Your task to perform on an android device: install app "Pandora - Music & Podcasts" Image 0: 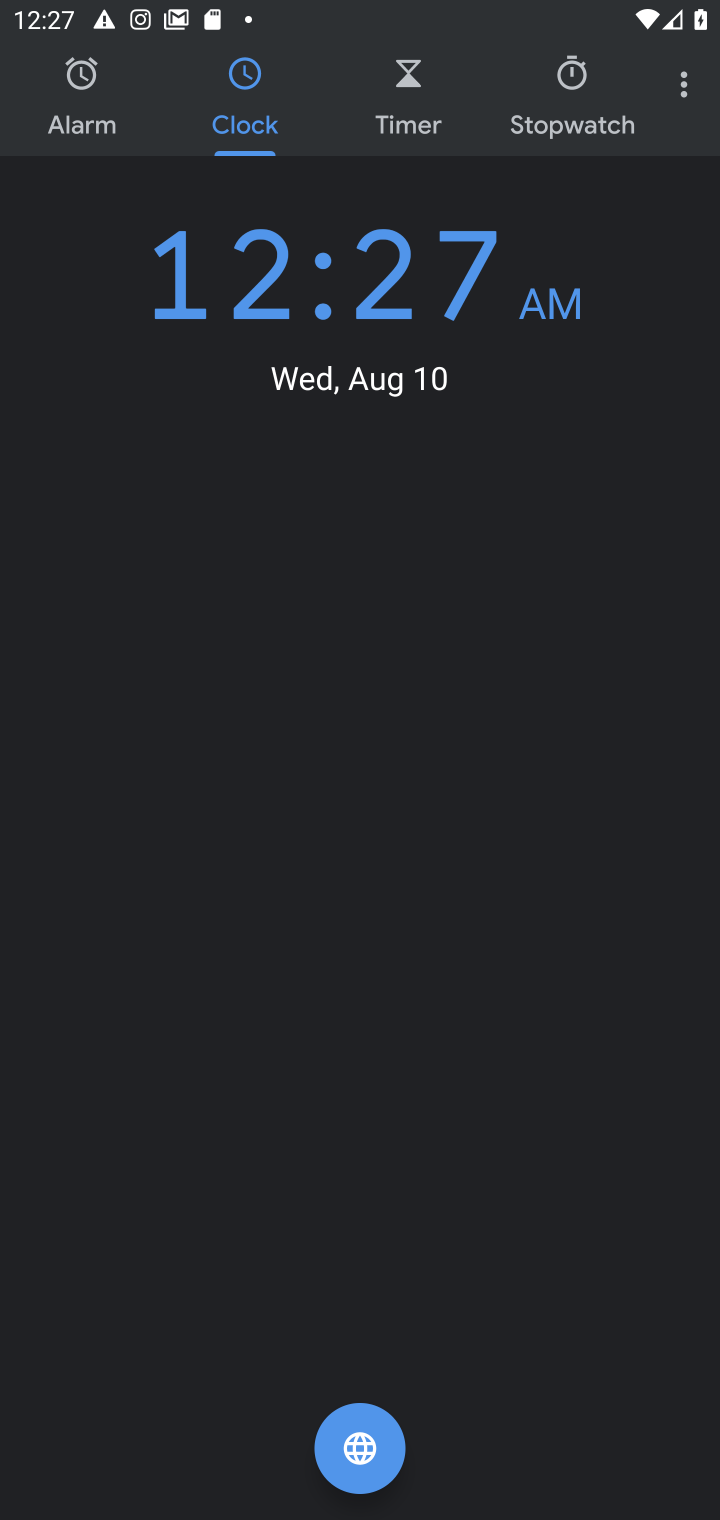
Step 0: press home button
Your task to perform on an android device: install app "Pandora - Music & Podcasts" Image 1: 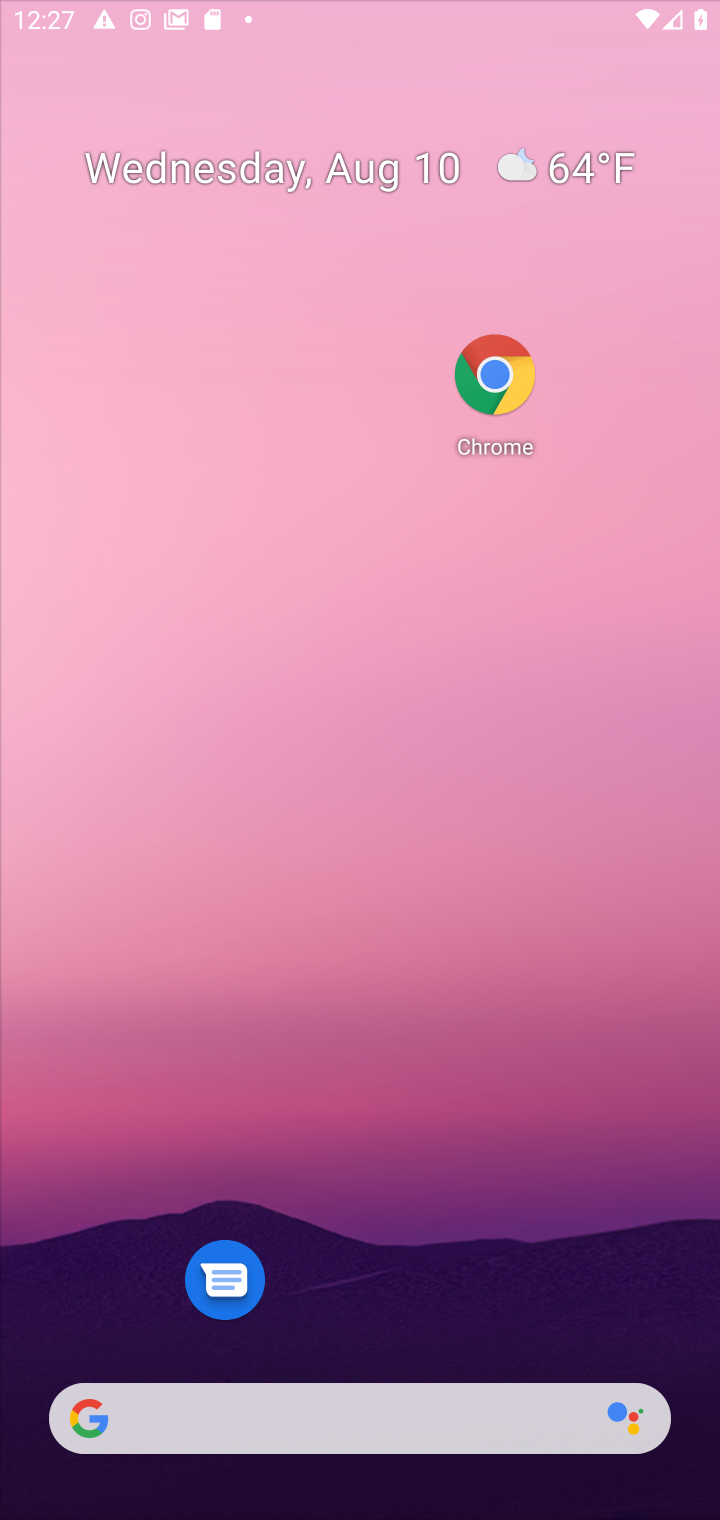
Step 1: drag from (273, 1307) to (39, 23)
Your task to perform on an android device: install app "Pandora - Music & Podcasts" Image 2: 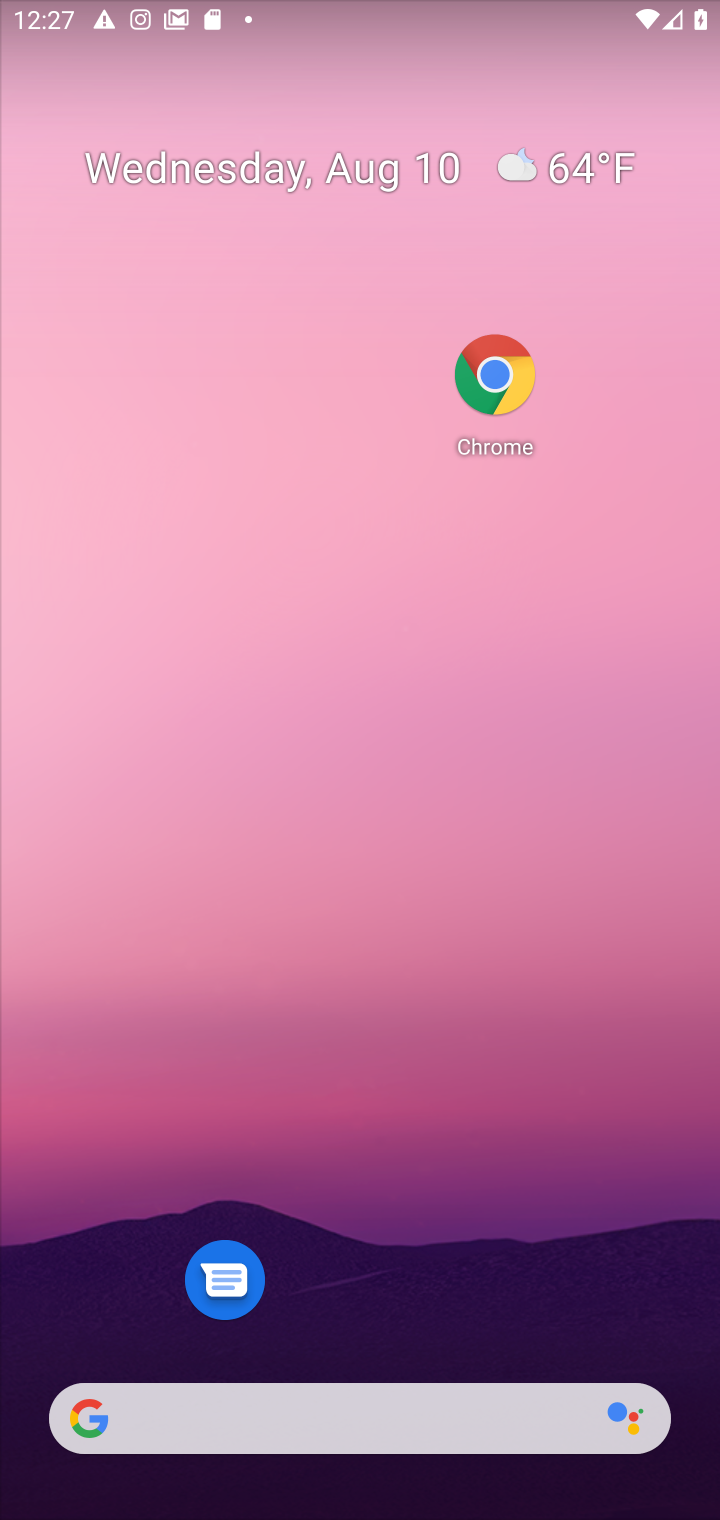
Step 2: drag from (407, 1366) to (316, 102)
Your task to perform on an android device: install app "Pandora - Music & Podcasts" Image 3: 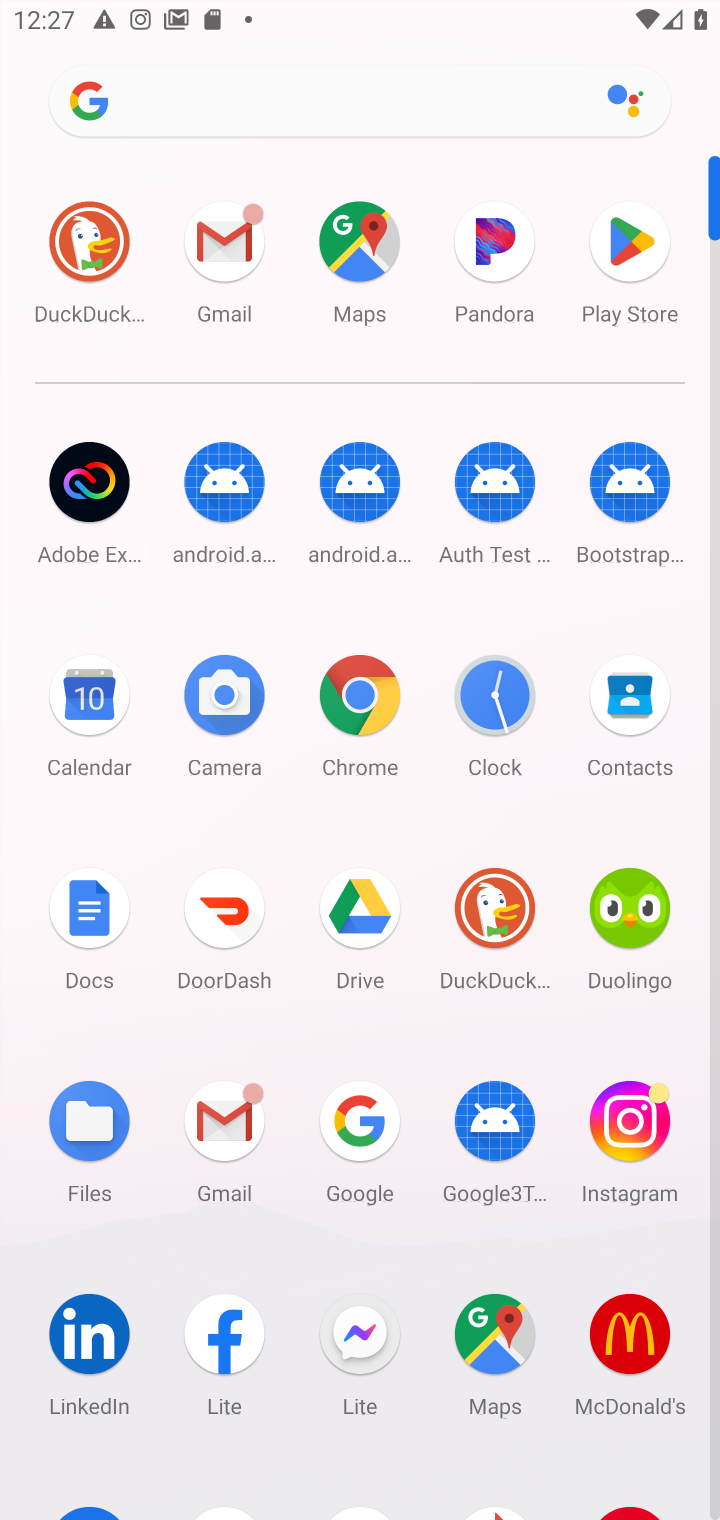
Step 3: click (601, 259)
Your task to perform on an android device: install app "Pandora - Music & Podcasts" Image 4: 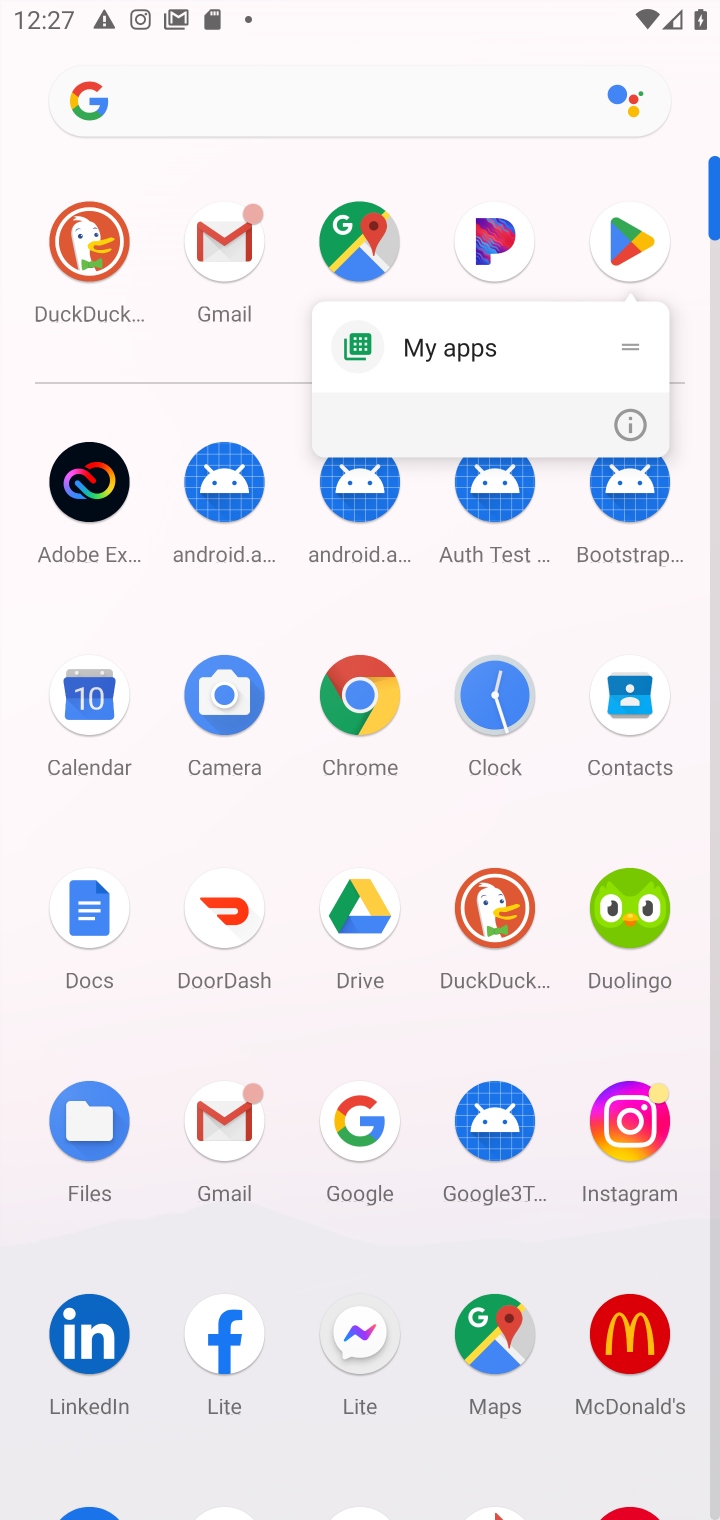
Step 4: click (625, 252)
Your task to perform on an android device: install app "Pandora - Music & Podcasts" Image 5: 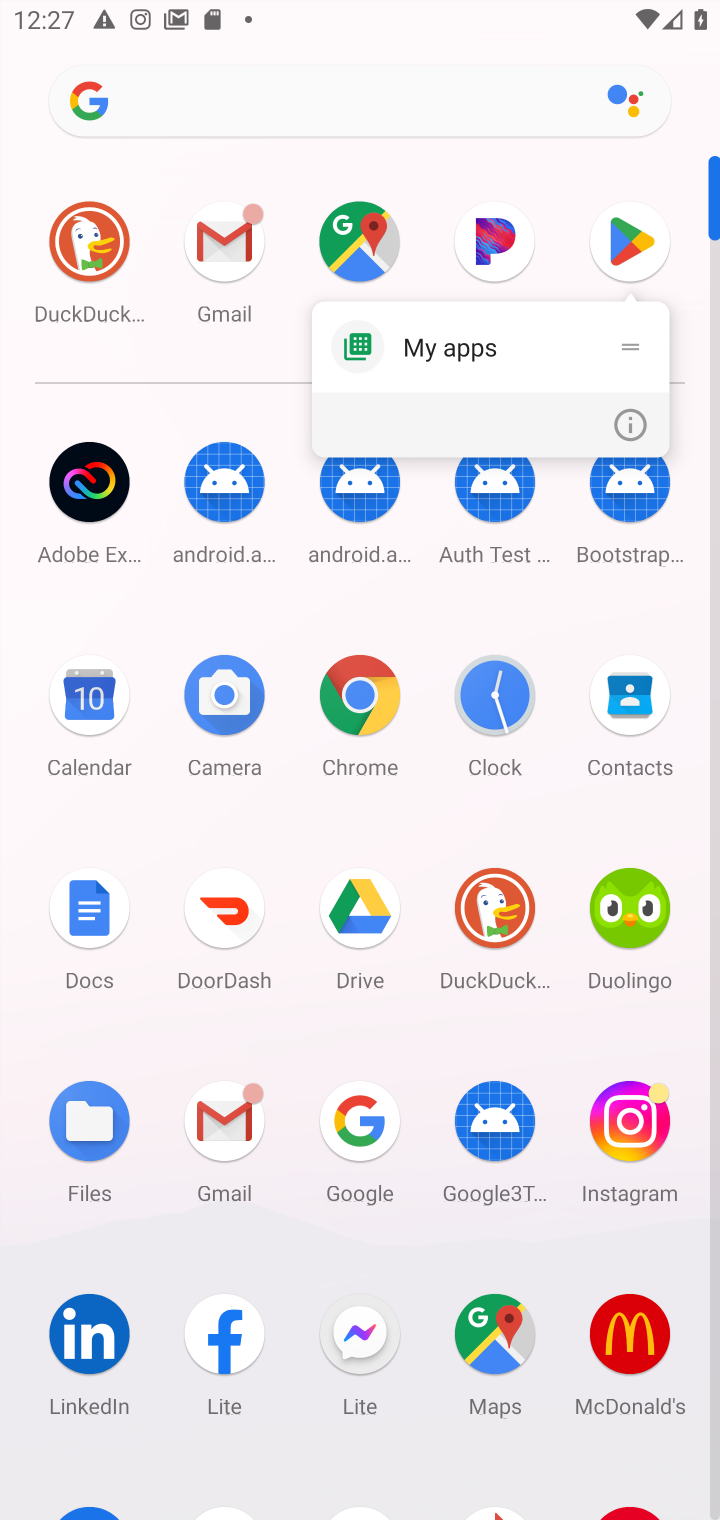
Step 5: click (625, 252)
Your task to perform on an android device: install app "Pandora - Music & Podcasts" Image 6: 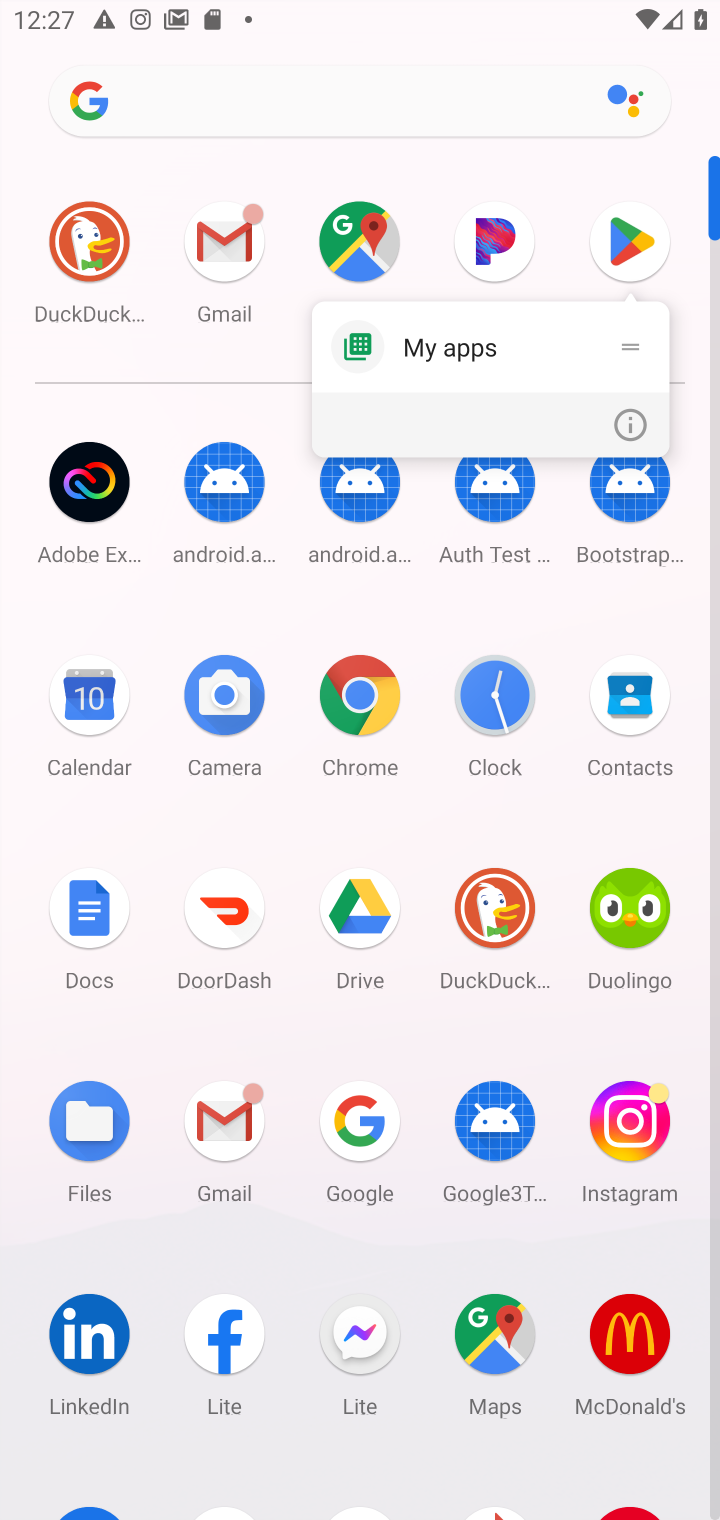
Step 6: click (625, 252)
Your task to perform on an android device: install app "Pandora - Music & Podcasts" Image 7: 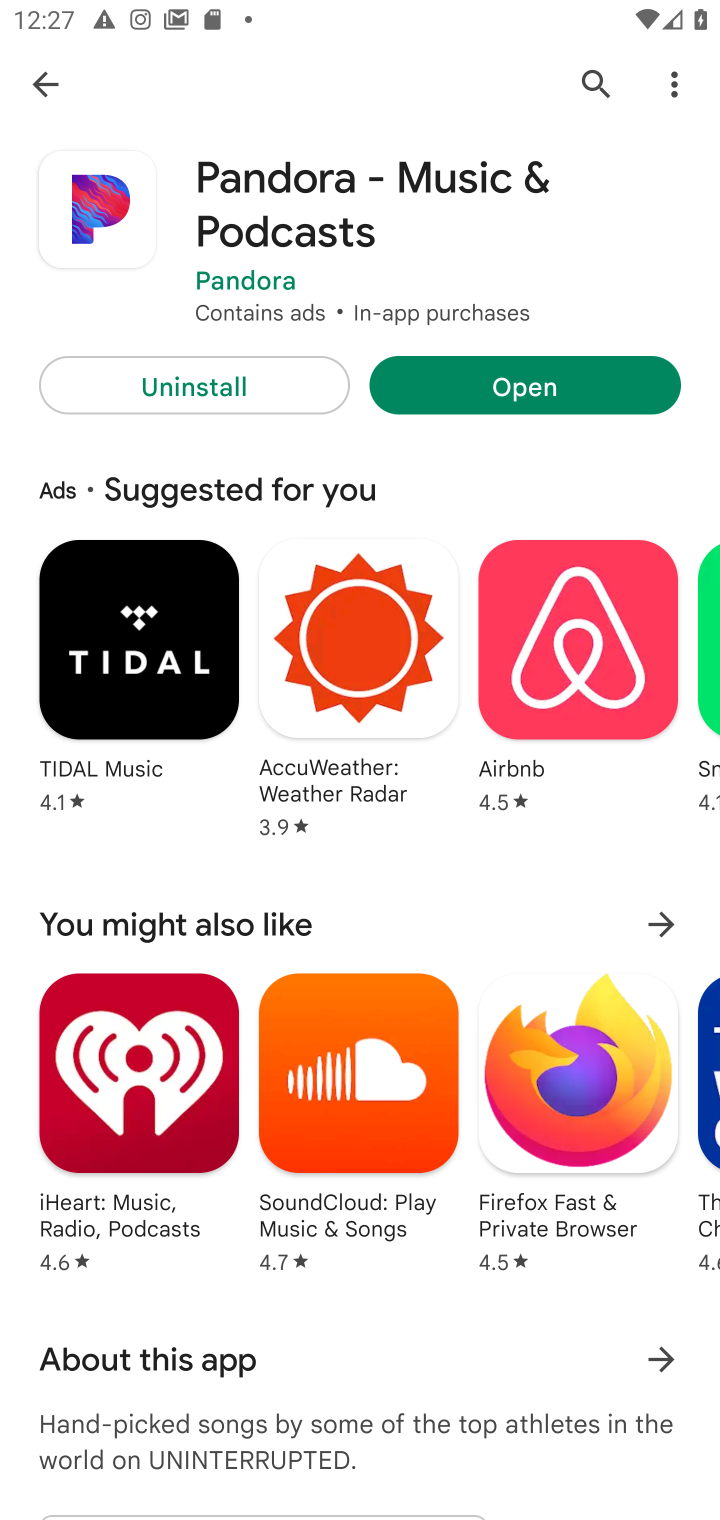
Step 7: click (525, 390)
Your task to perform on an android device: install app "Pandora - Music & Podcasts" Image 8: 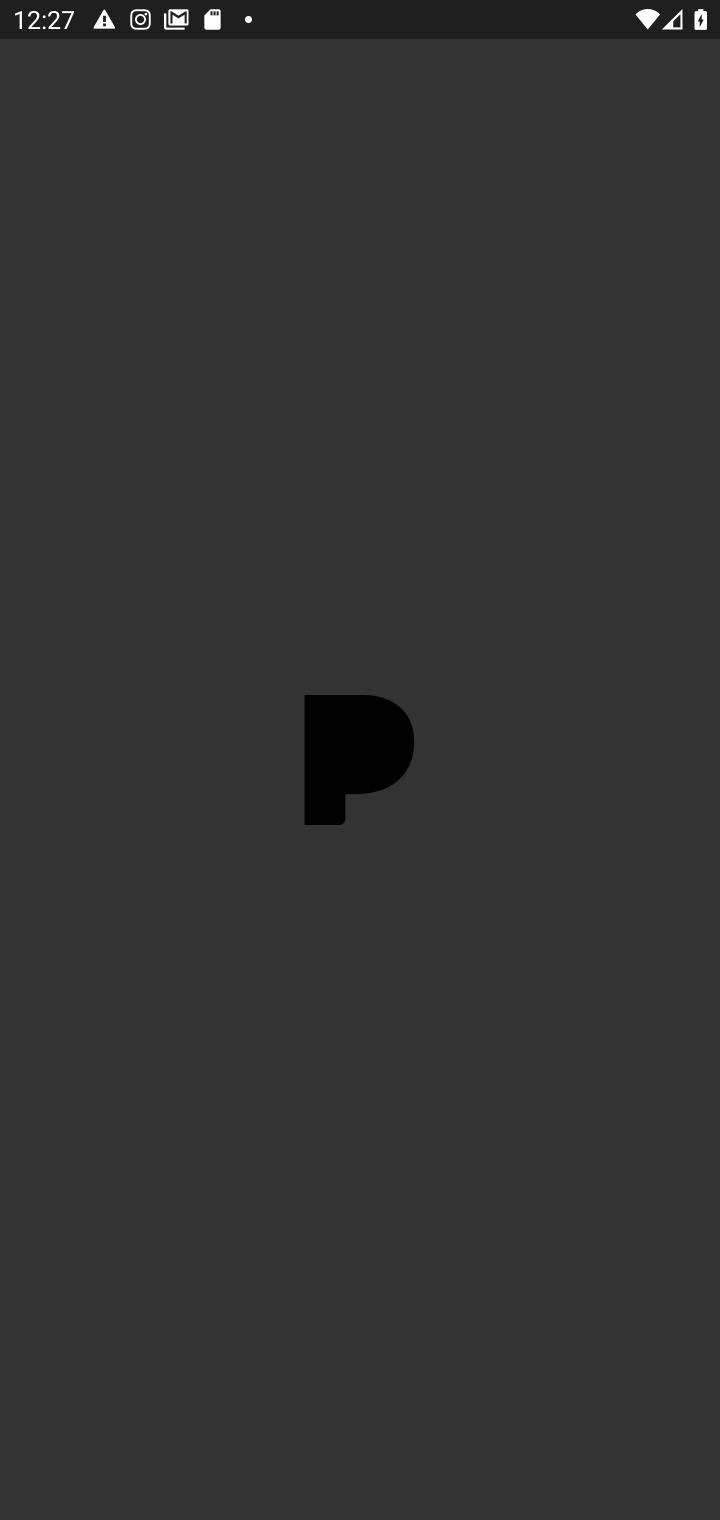
Step 8: task complete